Your task to perform on an android device: add a contact in the contacts app Image 0: 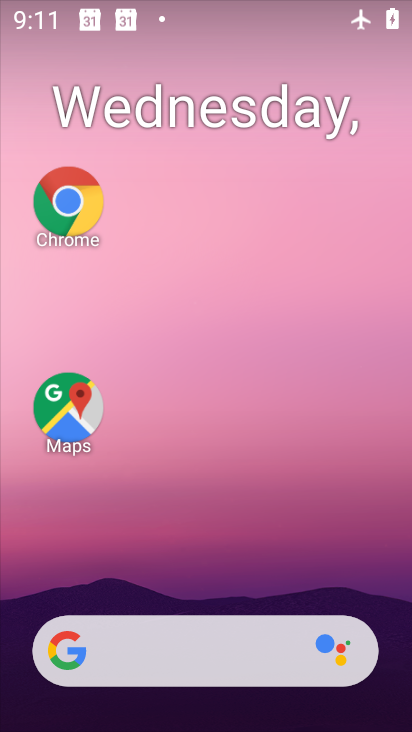
Step 0: drag from (201, 602) to (213, 0)
Your task to perform on an android device: add a contact in the contacts app Image 1: 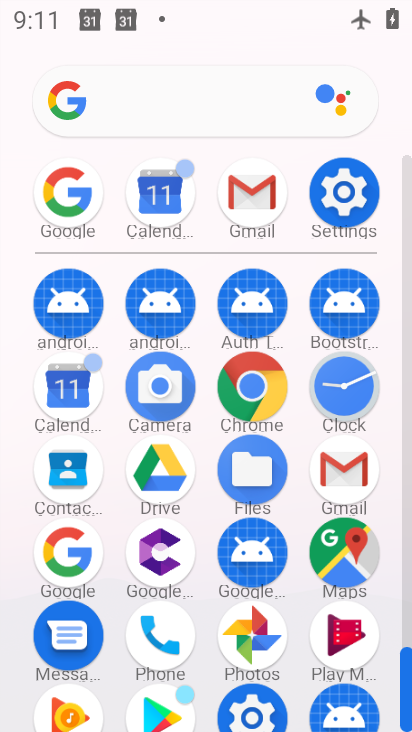
Step 1: click (166, 647)
Your task to perform on an android device: add a contact in the contacts app Image 2: 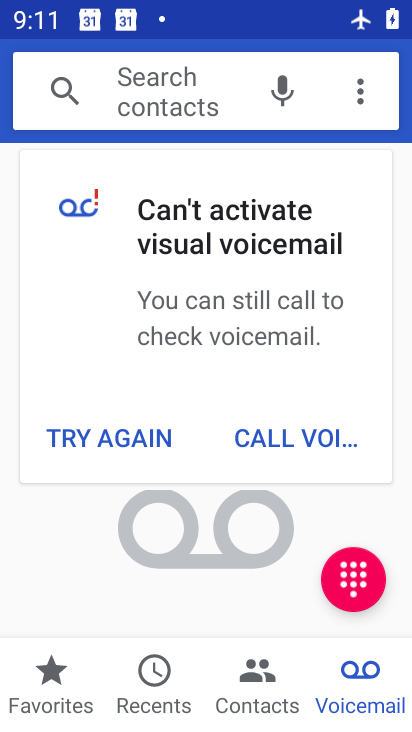
Step 2: click (242, 666)
Your task to perform on an android device: add a contact in the contacts app Image 3: 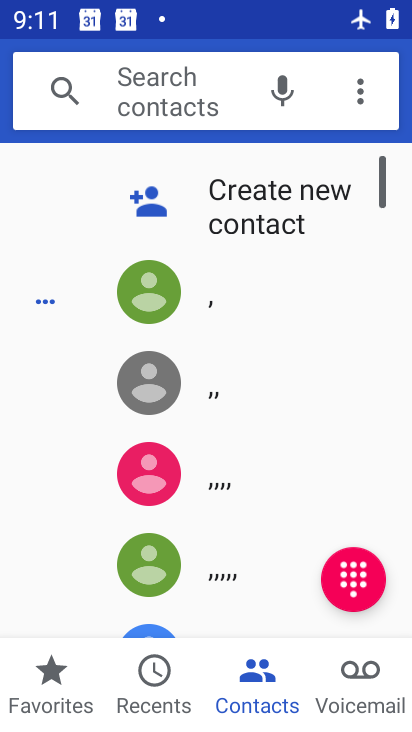
Step 3: click (264, 227)
Your task to perform on an android device: add a contact in the contacts app Image 4: 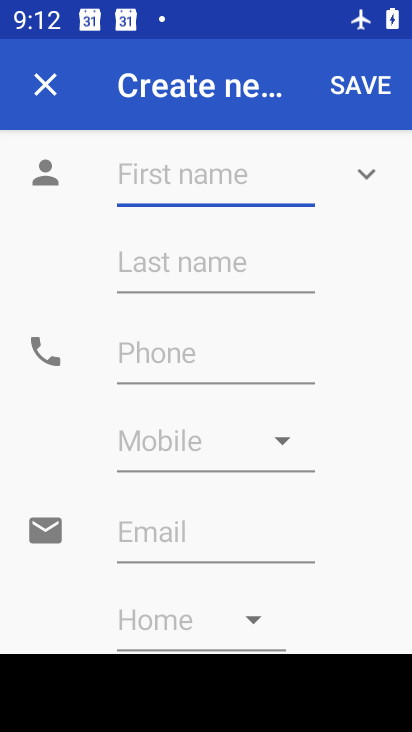
Step 4: type "pou"
Your task to perform on an android device: add a contact in the contacts app Image 5: 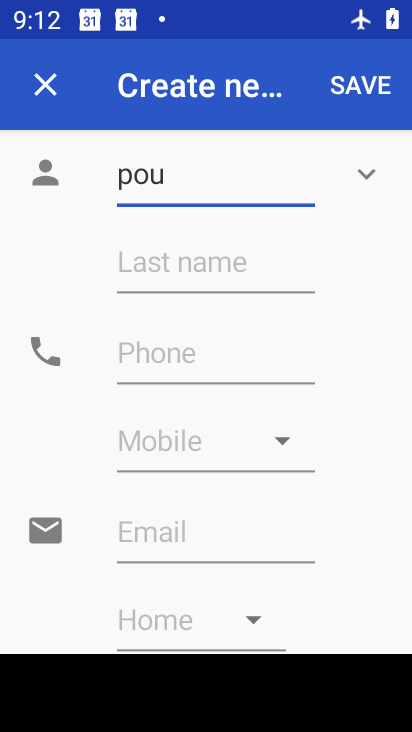
Step 5: click (193, 383)
Your task to perform on an android device: add a contact in the contacts app Image 6: 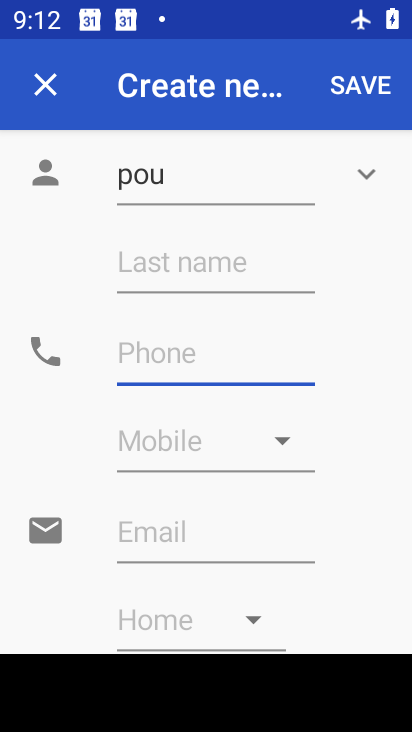
Step 6: type "989098"
Your task to perform on an android device: add a contact in the contacts app Image 7: 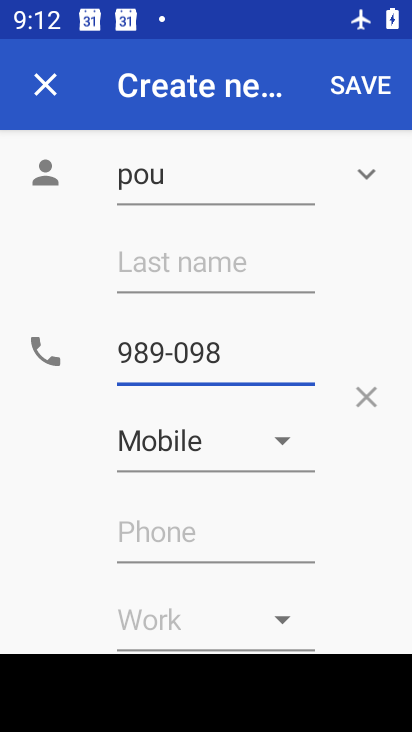
Step 7: click (368, 85)
Your task to perform on an android device: add a contact in the contacts app Image 8: 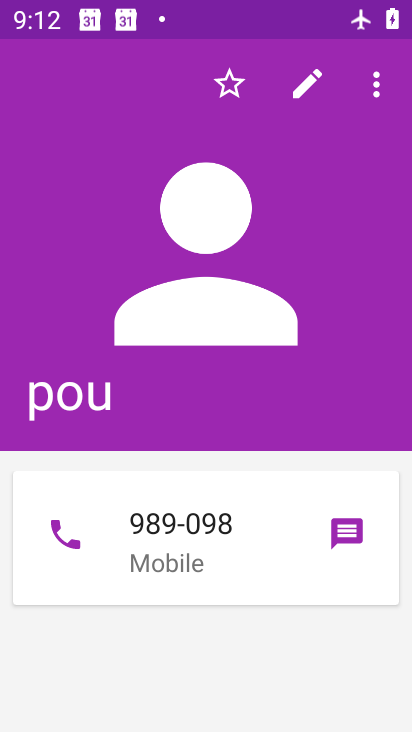
Step 8: task complete